Your task to perform on an android device: Search for corsair k70 on walmart.com, select the first entry, add it to the cart, then select checkout. Image 0: 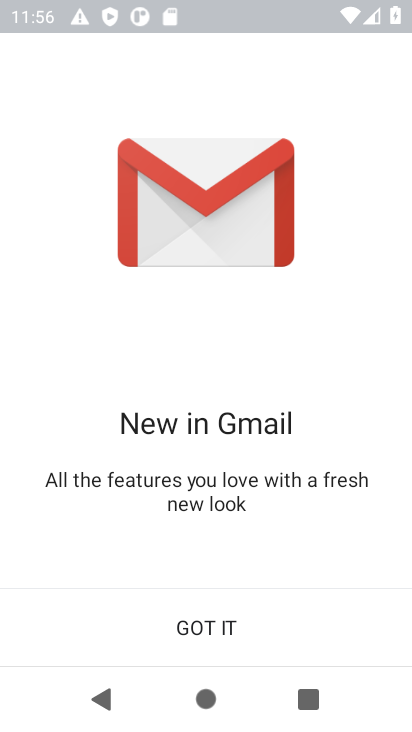
Step 0: press home button
Your task to perform on an android device: Search for corsair k70 on walmart.com, select the first entry, add it to the cart, then select checkout. Image 1: 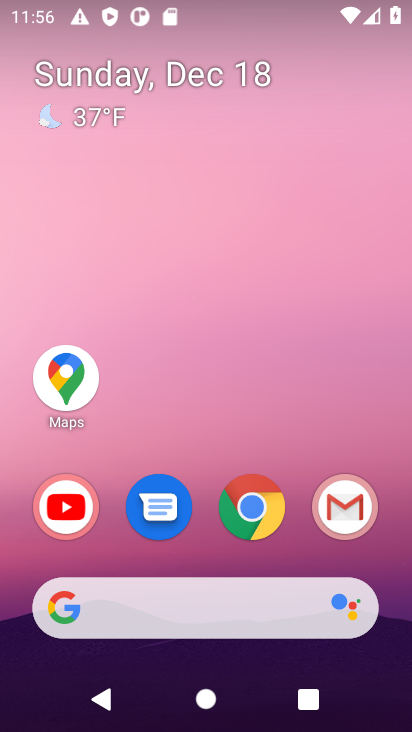
Step 1: click (253, 501)
Your task to perform on an android device: Search for corsair k70 on walmart.com, select the first entry, add it to the cart, then select checkout. Image 2: 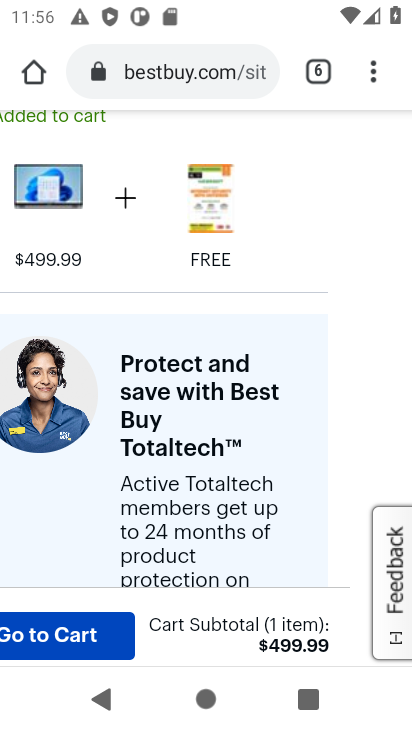
Step 2: click (163, 64)
Your task to perform on an android device: Search for corsair k70 on walmart.com, select the first entry, add it to the cart, then select checkout. Image 3: 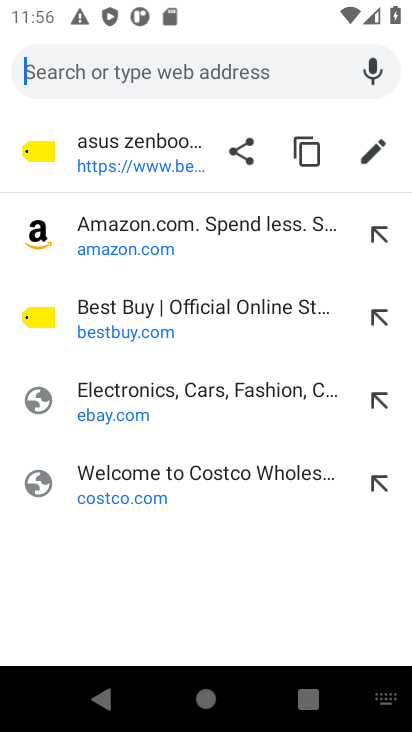
Step 3: type "walmart.com"
Your task to perform on an android device: Search for corsair k70 on walmart.com, select the first entry, add it to the cart, then select checkout. Image 4: 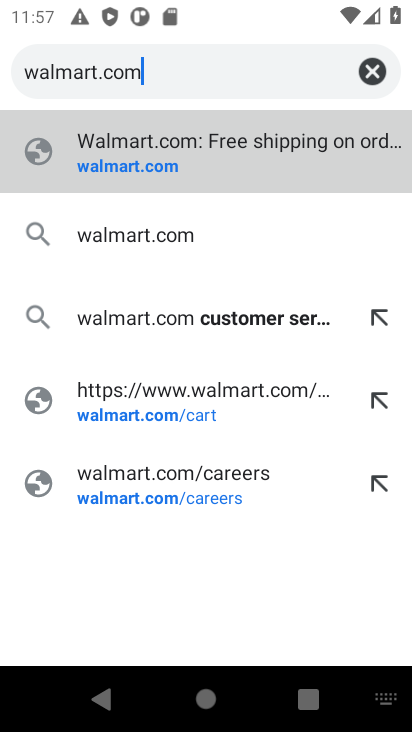
Step 4: click (130, 175)
Your task to perform on an android device: Search for corsair k70 on walmart.com, select the first entry, add it to the cart, then select checkout. Image 5: 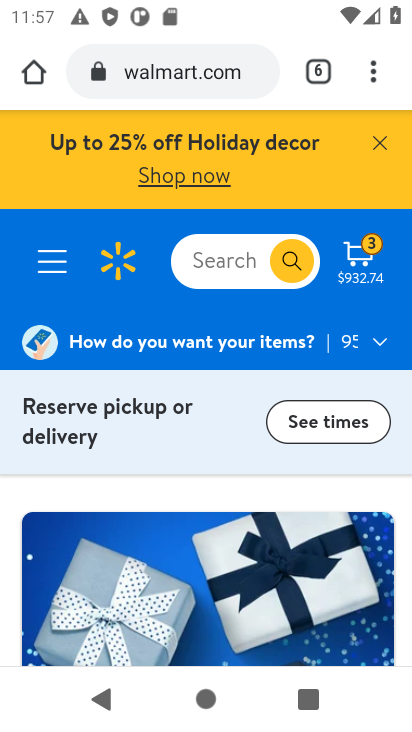
Step 5: click (209, 263)
Your task to perform on an android device: Search for corsair k70 on walmart.com, select the first entry, add it to the cart, then select checkout. Image 6: 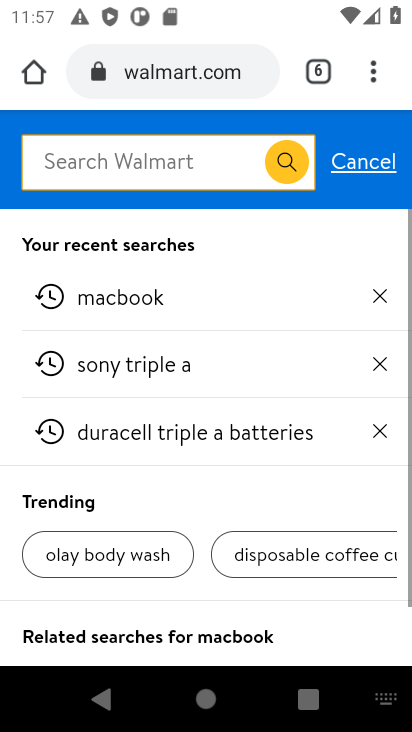
Step 6: type "corsair k70"
Your task to perform on an android device: Search for corsair k70 on walmart.com, select the first entry, add it to the cart, then select checkout. Image 7: 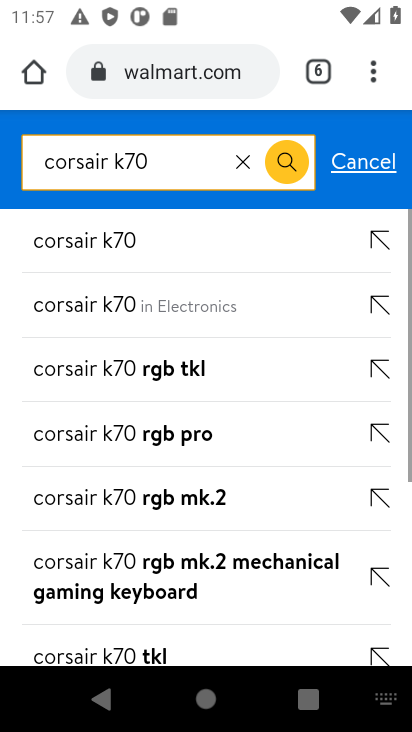
Step 7: click (288, 159)
Your task to perform on an android device: Search for corsair k70 on walmart.com, select the first entry, add it to the cart, then select checkout. Image 8: 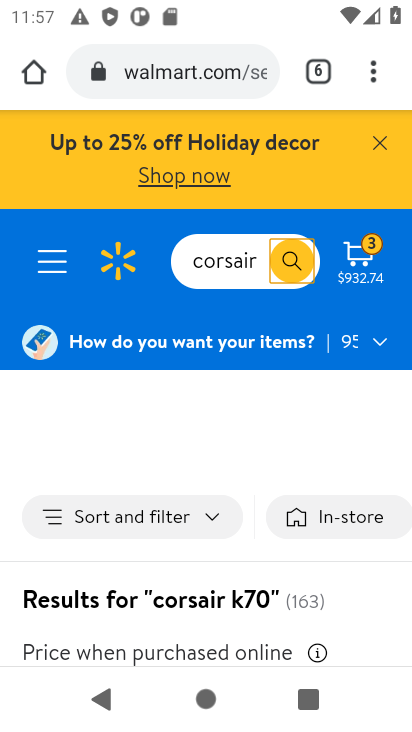
Step 8: drag from (172, 521) to (170, 180)
Your task to perform on an android device: Search for corsair k70 on walmart.com, select the first entry, add it to the cart, then select checkout. Image 9: 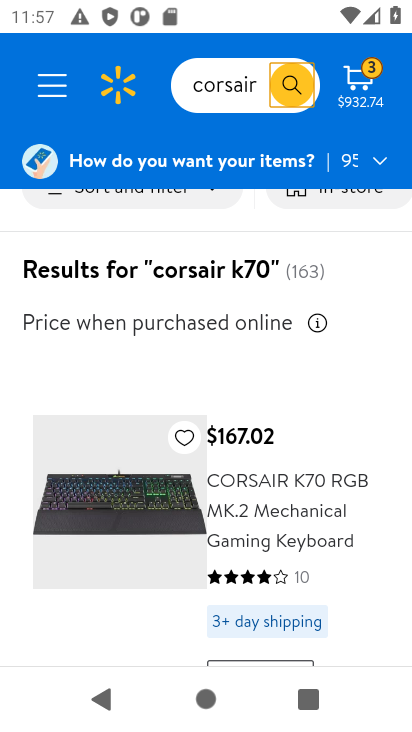
Step 9: drag from (142, 436) to (138, 230)
Your task to perform on an android device: Search for corsair k70 on walmart.com, select the first entry, add it to the cart, then select checkout. Image 10: 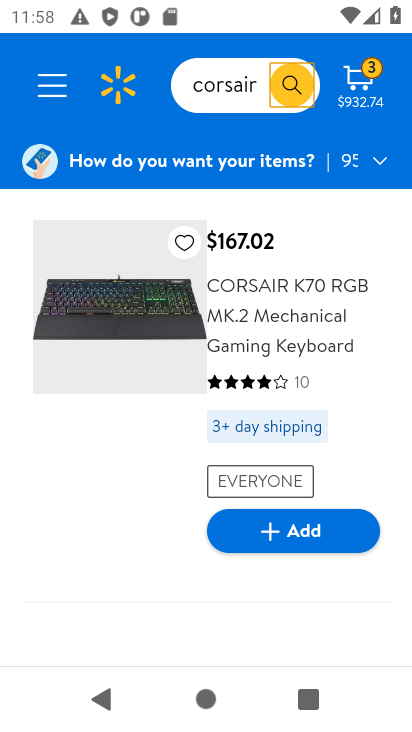
Step 10: click (301, 536)
Your task to perform on an android device: Search for corsair k70 on walmart.com, select the first entry, add it to the cart, then select checkout. Image 11: 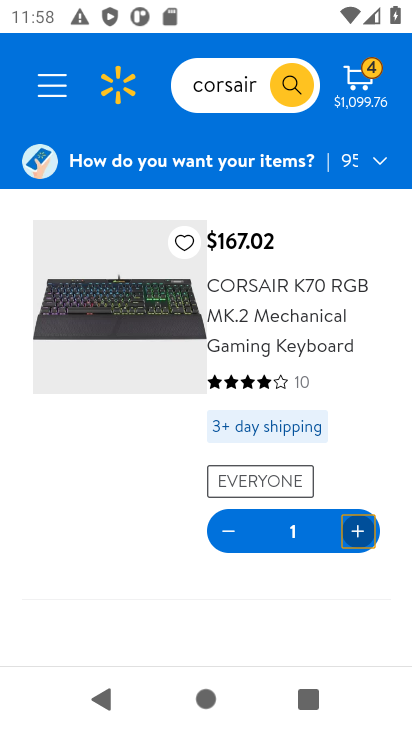
Step 11: click (357, 90)
Your task to perform on an android device: Search for corsair k70 on walmart.com, select the first entry, add it to the cart, then select checkout. Image 12: 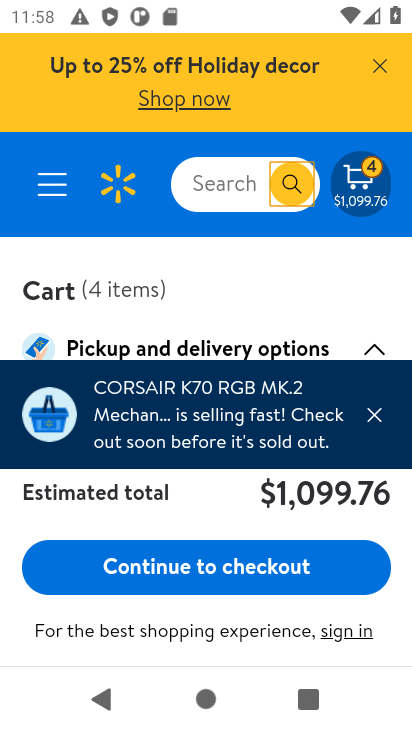
Step 12: click (171, 568)
Your task to perform on an android device: Search for corsair k70 on walmart.com, select the first entry, add it to the cart, then select checkout. Image 13: 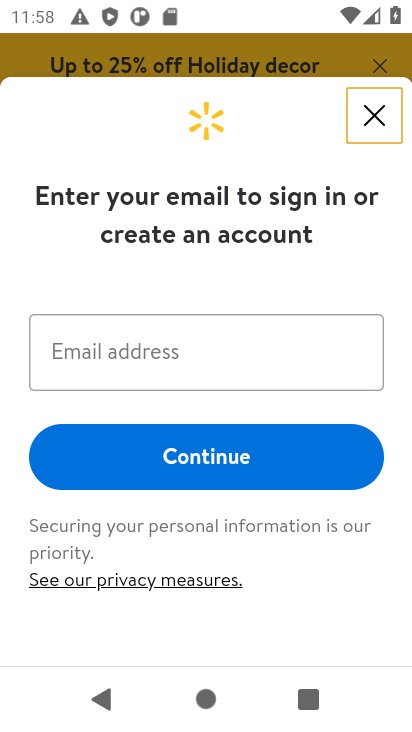
Step 13: task complete